Your task to perform on an android device: Is it going to rain today? Image 0: 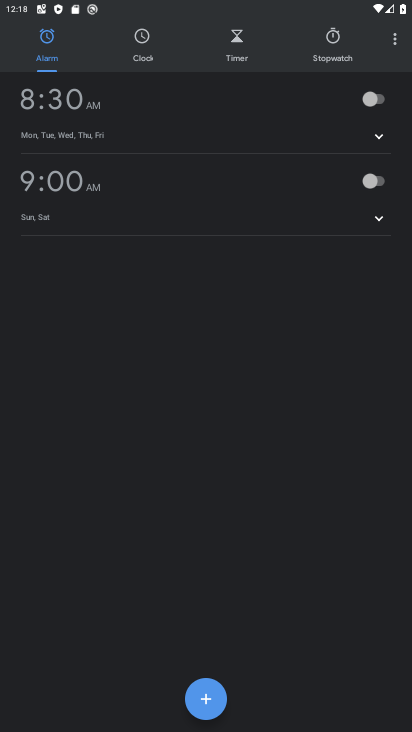
Step 0: press home button
Your task to perform on an android device: Is it going to rain today? Image 1: 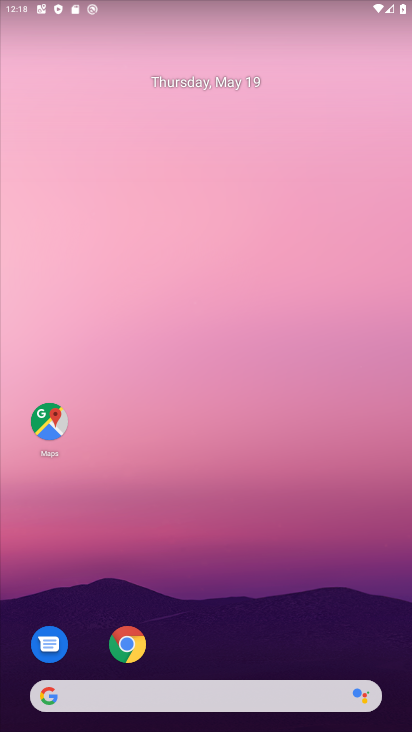
Step 1: drag from (285, 621) to (289, 207)
Your task to perform on an android device: Is it going to rain today? Image 2: 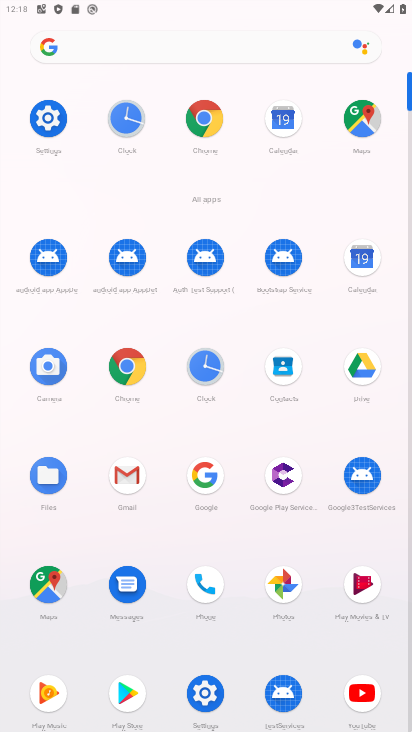
Step 2: click (117, 379)
Your task to perform on an android device: Is it going to rain today? Image 3: 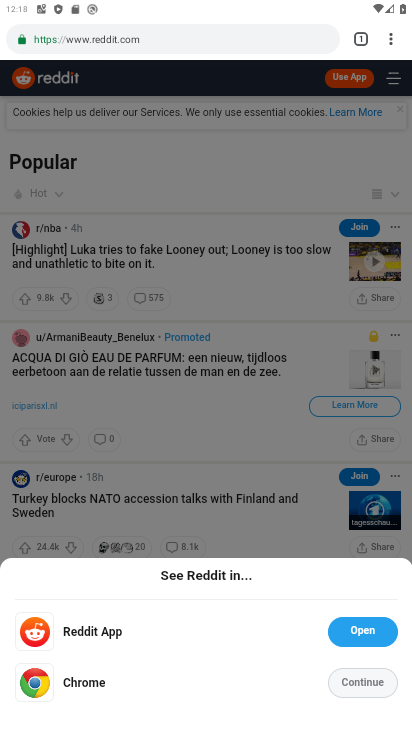
Step 3: click (175, 35)
Your task to perform on an android device: Is it going to rain today? Image 4: 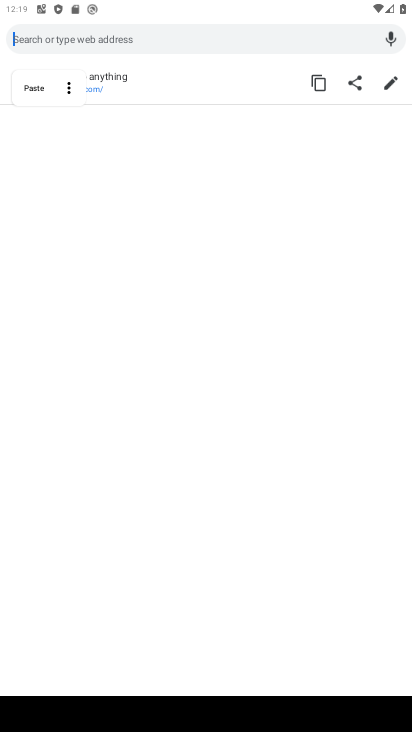
Step 4: type "is it going to rain today"
Your task to perform on an android device: Is it going to rain today? Image 5: 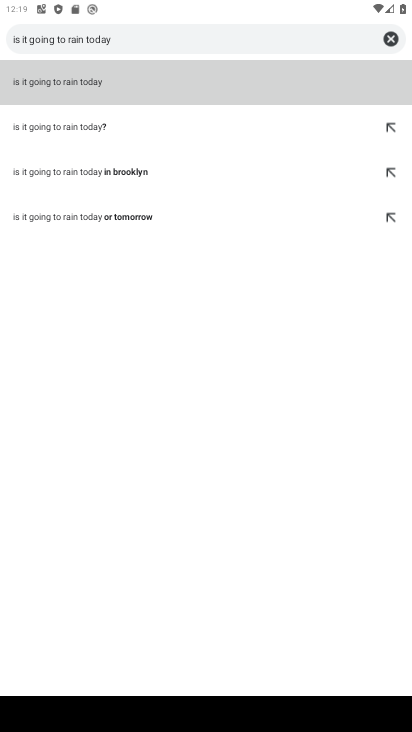
Step 5: click (187, 116)
Your task to perform on an android device: Is it going to rain today? Image 6: 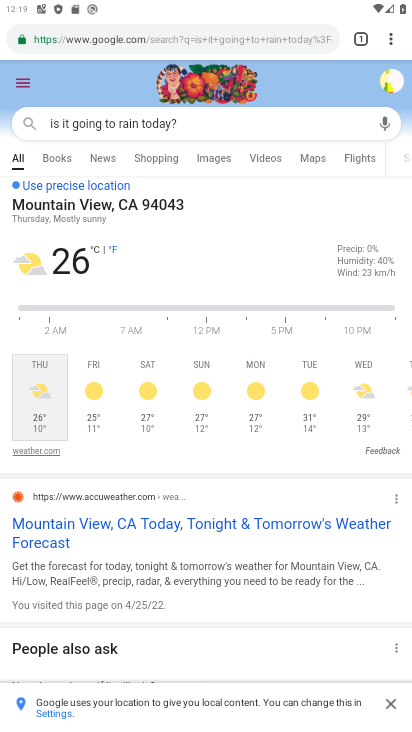
Step 6: task complete